Your task to perform on an android device: create a new album in the google photos Image 0: 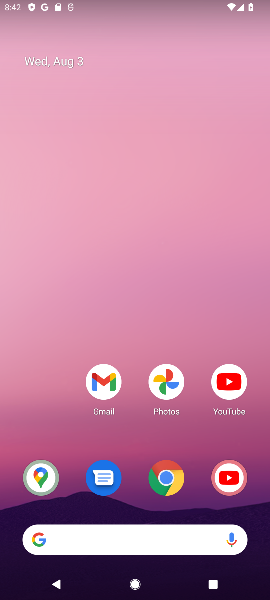
Step 0: click (168, 383)
Your task to perform on an android device: create a new album in the google photos Image 1: 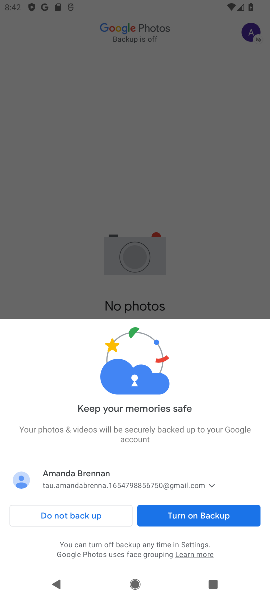
Step 1: click (220, 519)
Your task to perform on an android device: create a new album in the google photos Image 2: 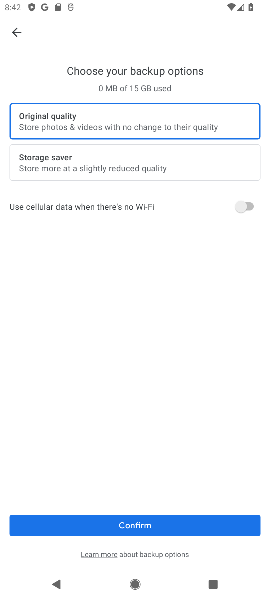
Step 2: drag from (220, 519) to (192, 519)
Your task to perform on an android device: create a new album in the google photos Image 3: 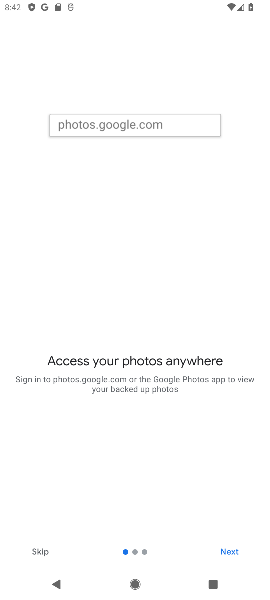
Step 3: click (228, 563)
Your task to perform on an android device: create a new album in the google photos Image 4: 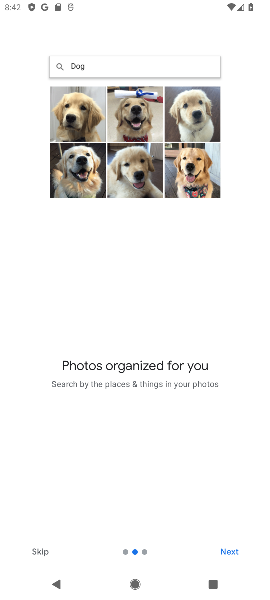
Step 4: click (229, 556)
Your task to perform on an android device: create a new album in the google photos Image 5: 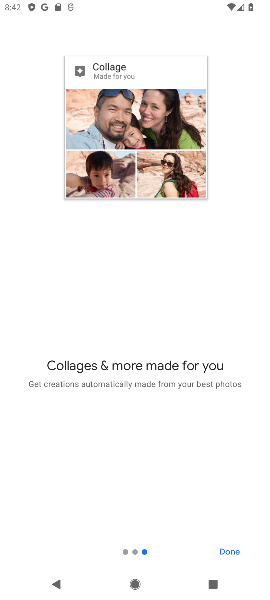
Step 5: click (230, 556)
Your task to perform on an android device: create a new album in the google photos Image 6: 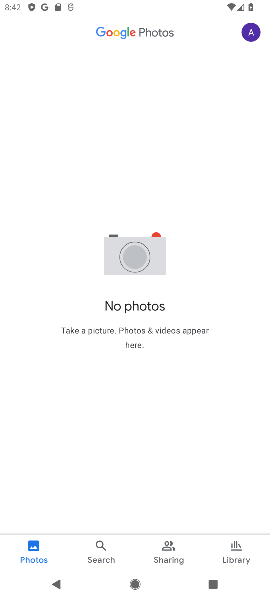
Step 6: click (237, 549)
Your task to perform on an android device: create a new album in the google photos Image 7: 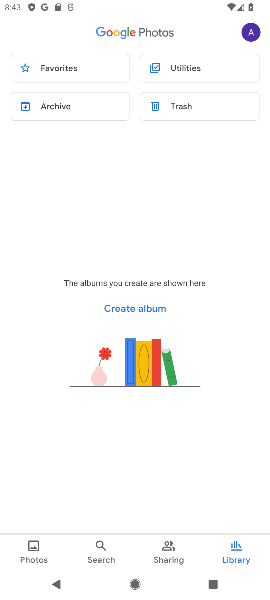
Step 7: click (108, 553)
Your task to perform on an android device: create a new album in the google photos Image 8: 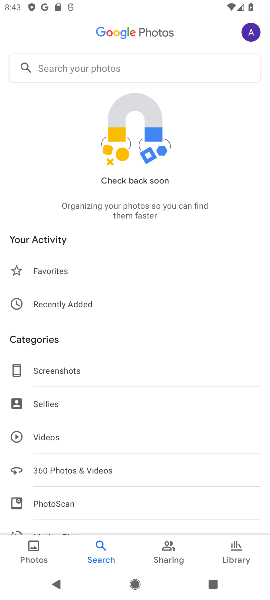
Step 8: task complete